Your task to perform on an android device: turn off sleep mode Image 0: 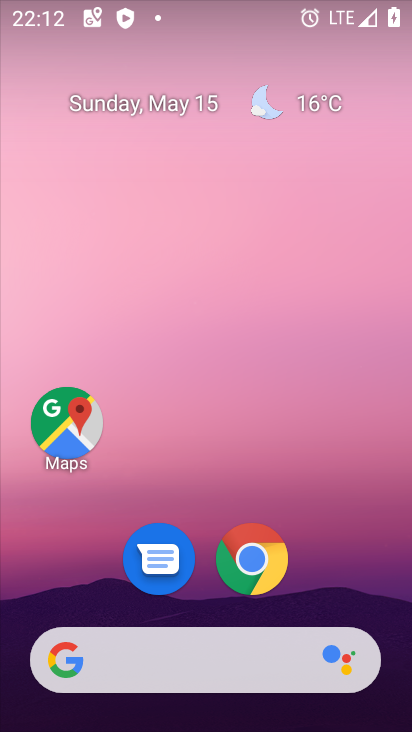
Step 0: drag from (307, 478) to (219, 30)
Your task to perform on an android device: turn off sleep mode Image 1: 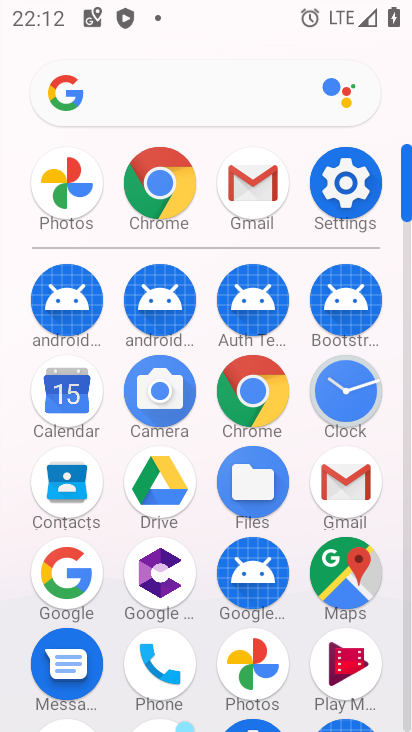
Step 1: click (350, 181)
Your task to perform on an android device: turn off sleep mode Image 2: 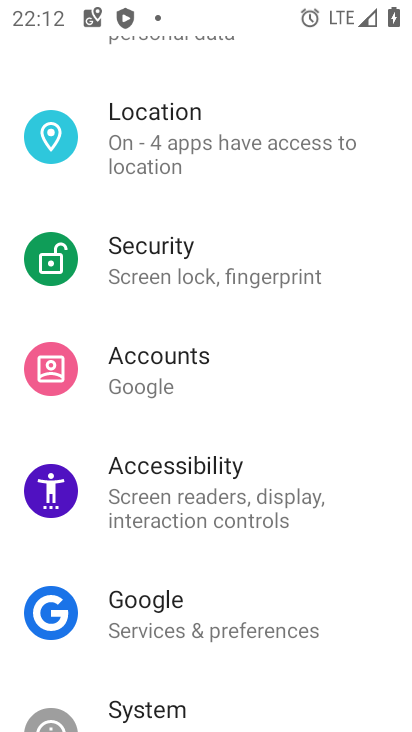
Step 2: drag from (229, 200) to (264, 729)
Your task to perform on an android device: turn off sleep mode Image 3: 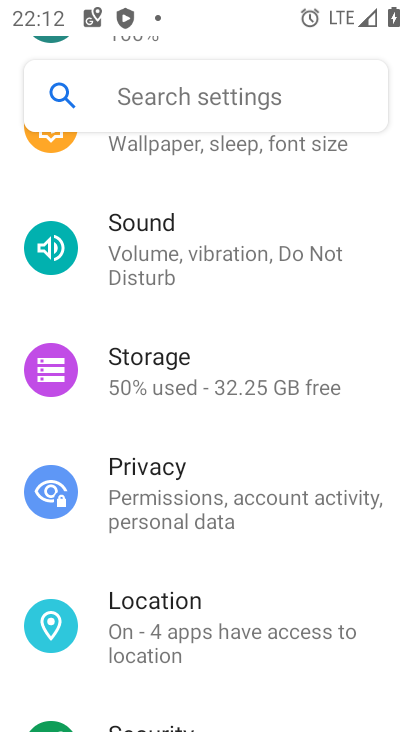
Step 3: drag from (178, 172) to (209, 535)
Your task to perform on an android device: turn off sleep mode Image 4: 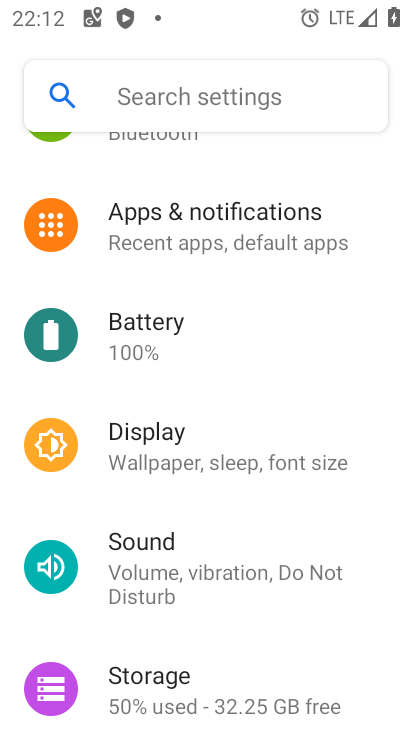
Step 4: click (154, 441)
Your task to perform on an android device: turn off sleep mode Image 5: 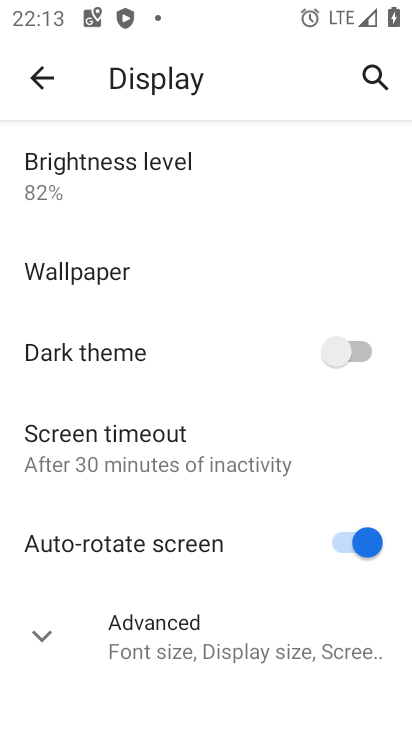
Step 5: task complete